Your task to perform on an android device: open wifi settings Image 0: 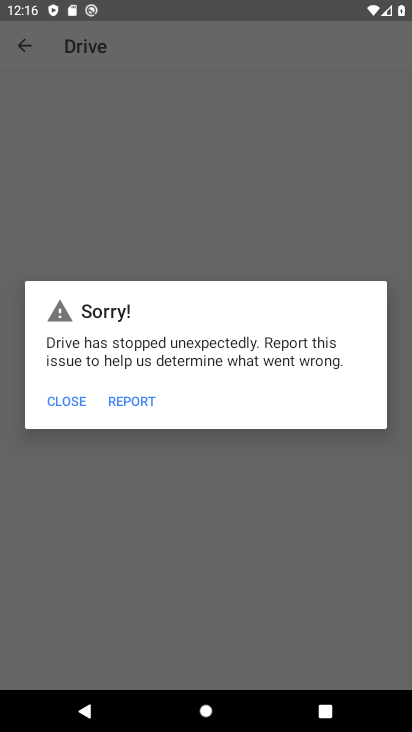
Step 0: press home button
Your task to perform on an android device: open wifi settings Image 1: 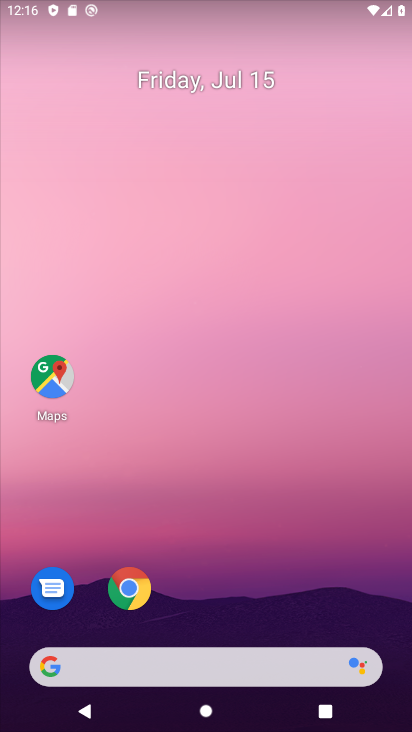
Step 1: drag from (262, 596) to (271, 18)
Your task to perform on an android device: open wifi settings Image 2: 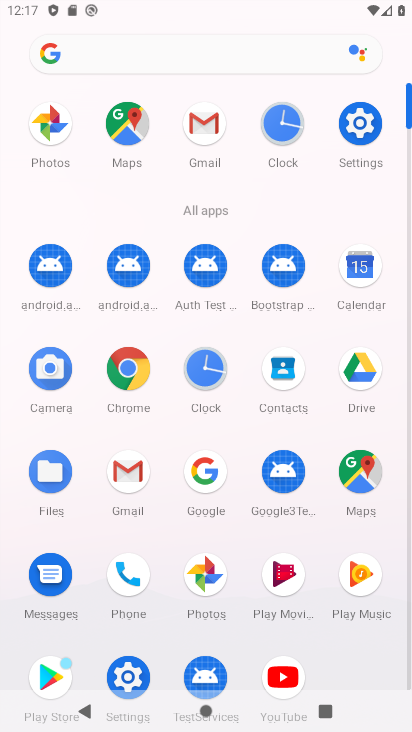
Step 2: click (366, 135)
Your task to perform on an android device: open wifi settings Image 3: 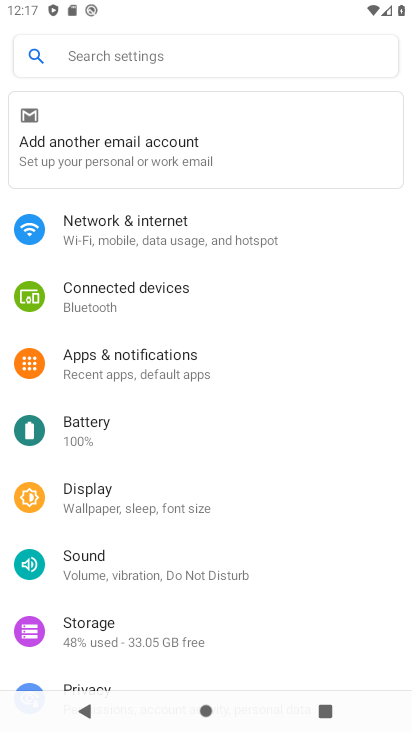
Step 3: click (159, 245)
Your task to perform on an android device: open wifi settings Image 4: 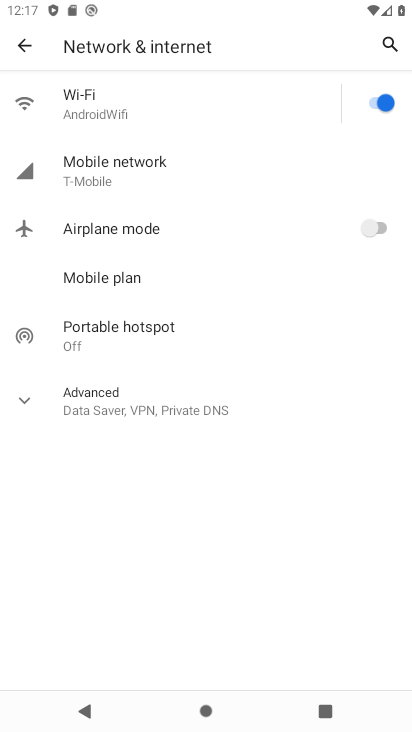
Step 4: click (85, 97)
Your task to perform on an android device: open wifi settings Image 5: 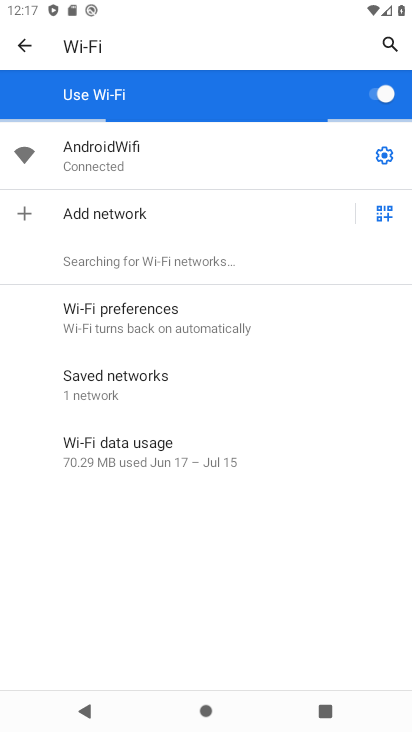
Step 5: task complete